Your task to perform on an android device: open wifi settings Image 0: 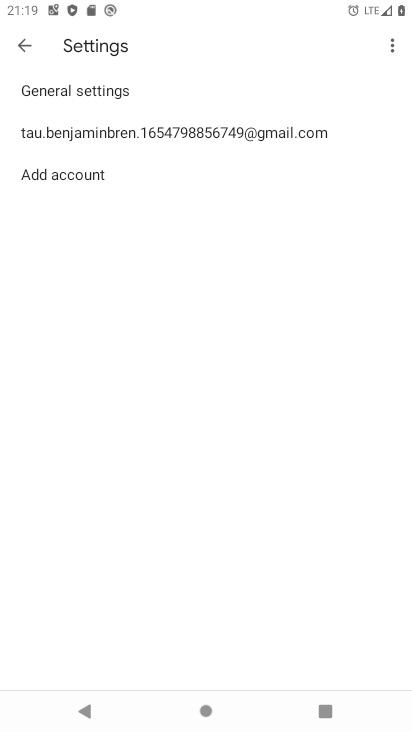
Step 0: press home button
Your task to perform on an android device: open wifi settings Image 1: 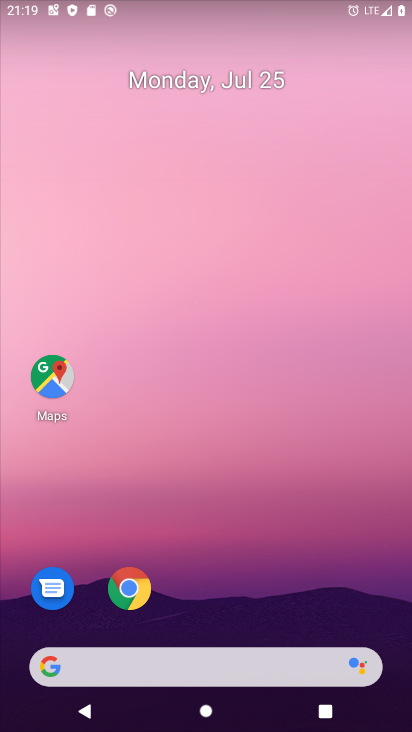
Step 1: drag from (220, 651) to (257, 96)
Your task to perform on an android device: open wifi settings Image 2: 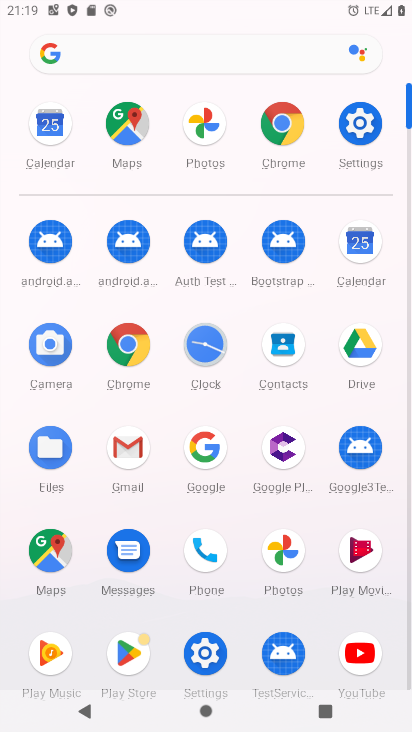
Step 2: click (355, 118)
Your task to perform on an android device: open wifi settings Image 3: 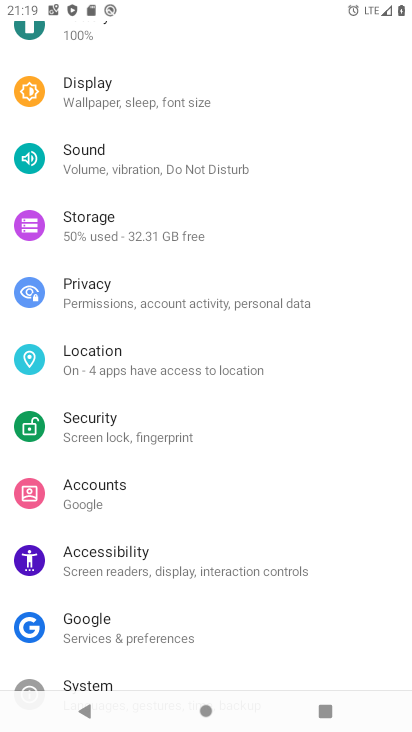
Step 3: drag from (176, 110) to (176, 440)
Your task to perform on an android device: open wifi settings Image 4: 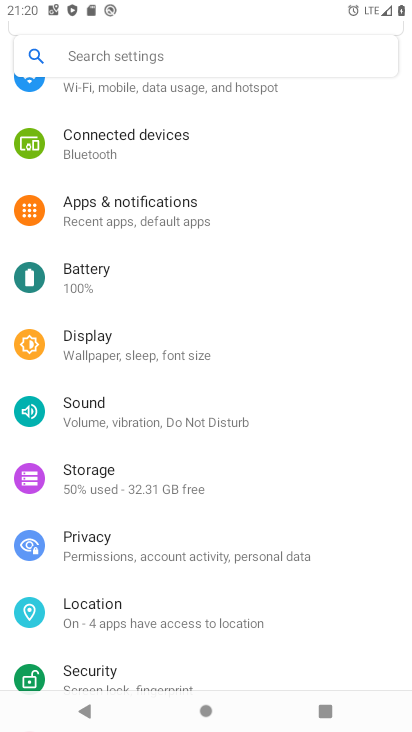
Step 4: drag from (169, 70) to (203, 525)
Your task to perform on an android device: open wifi settings Image 5: 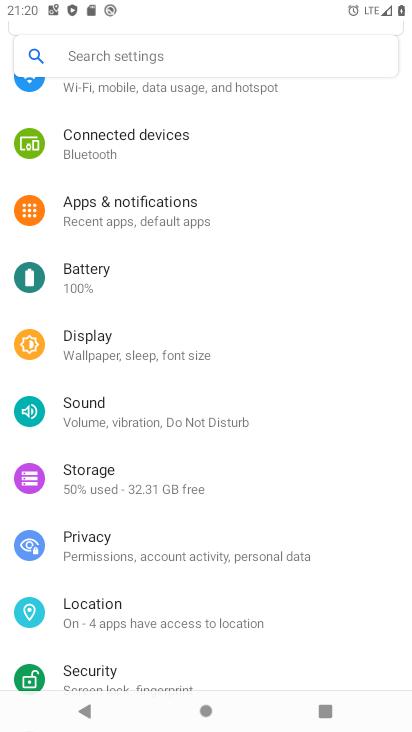
Step 5: drag from (114, 91) to (155, 487)
Your task to perform on an android device: open wifi settings Image 6: 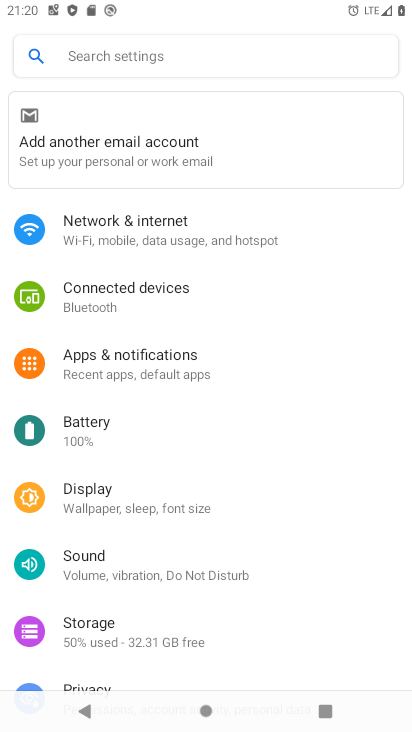
Step 6: click (130, 216)
Your task to perform on an android device: open wifi settings Image 7: 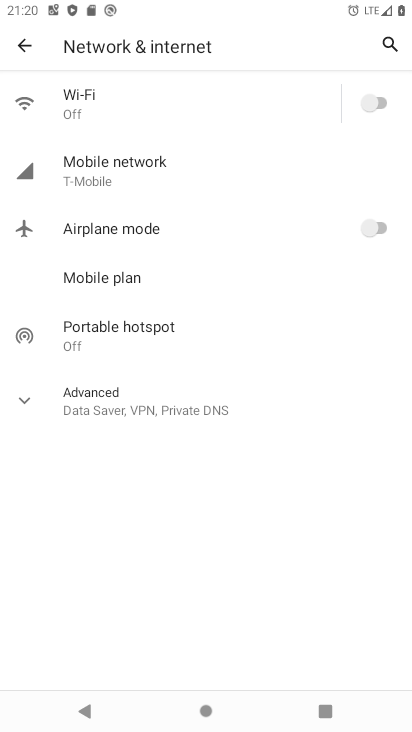
Step 7: click (136, 110)
Your task to perform on an android device: open wifi settings Image 8: 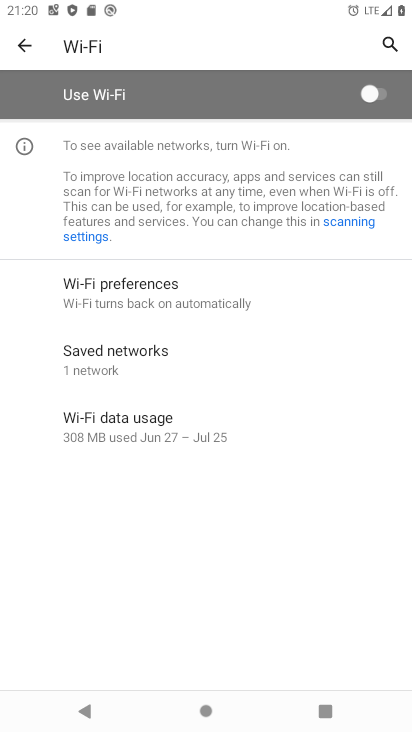
Step 8: click (379, 96)
Your task to perform on an android device: open wifi settings Image 9: 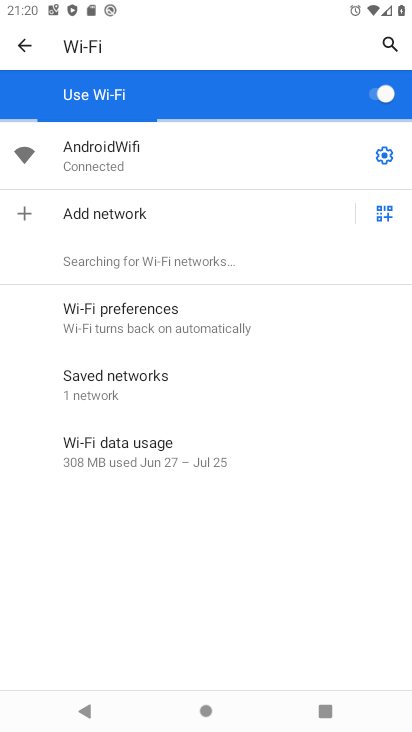
Step 9: click (380, 154)
Your task to perform on an android device: open wifi settings Image 10: 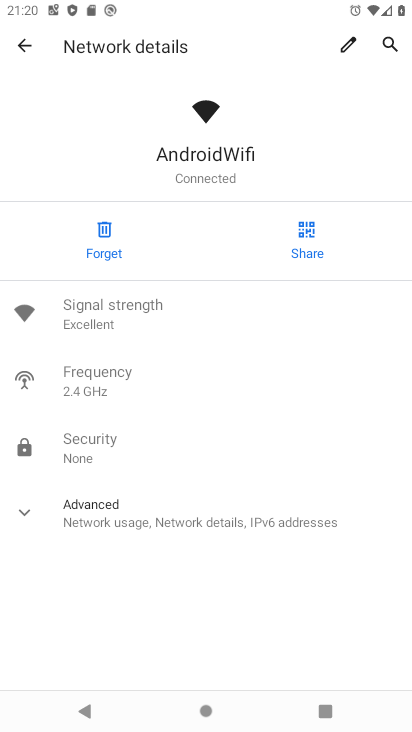
Step 10: click (109, 512)
Your task to perform on an android device: open wifi settings Image 11: 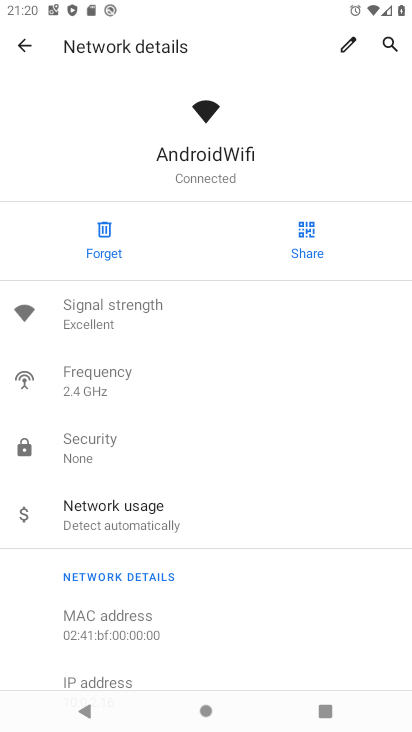
Step 11: task complete